Your task to perform on an android device: Do I have any events this weekend? Image 0: 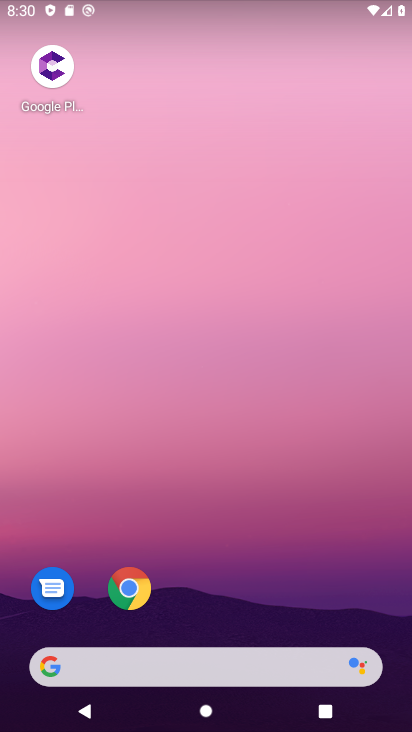
Step 0: drag from (372, 593) to (361, 198)
Your task to perform on an android device: Do I have any events this weekend? Image 1: 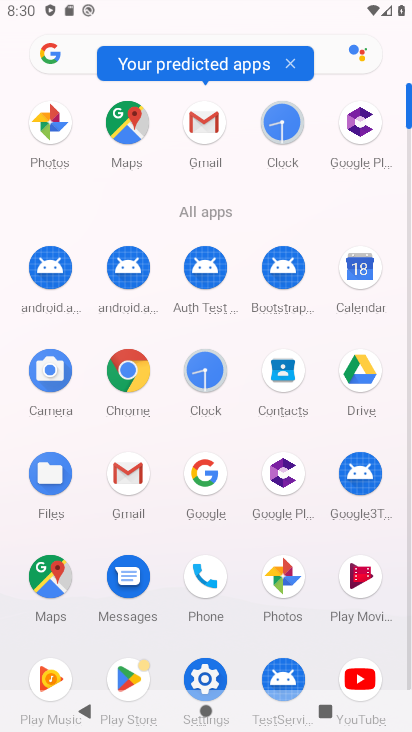
Step 1: click (363, 268)
Your task to perform on an android device: Do I have any events this weekend? Image 2: 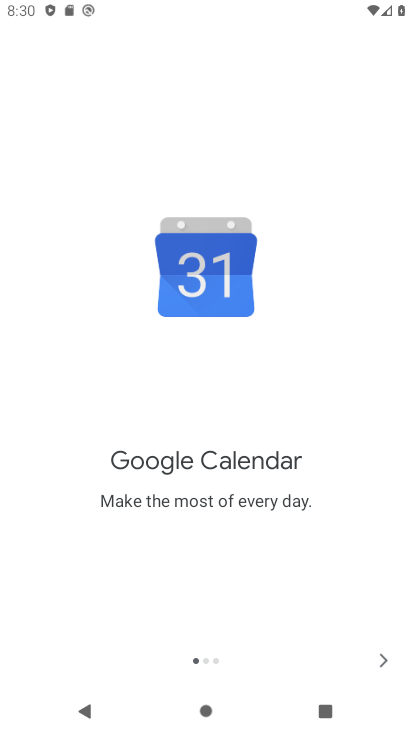
Step 2: click (379, 656)
Your task to perform on an android device: Do I have any events this weekend? Image 3: 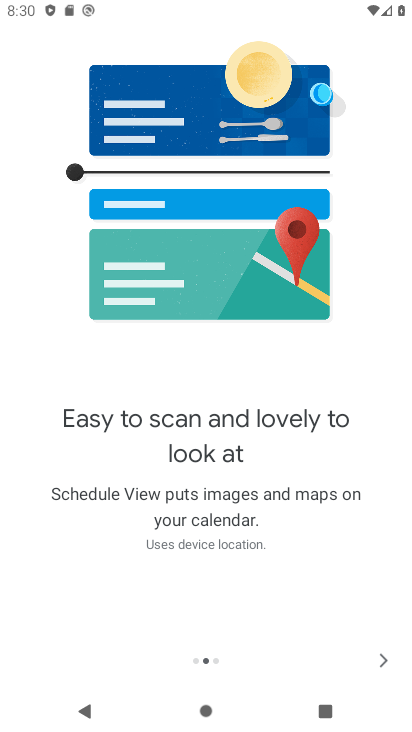
Step 3: click (379, 656)
Your task to perform on an android device: Do I have any events this weekend? Image 4: 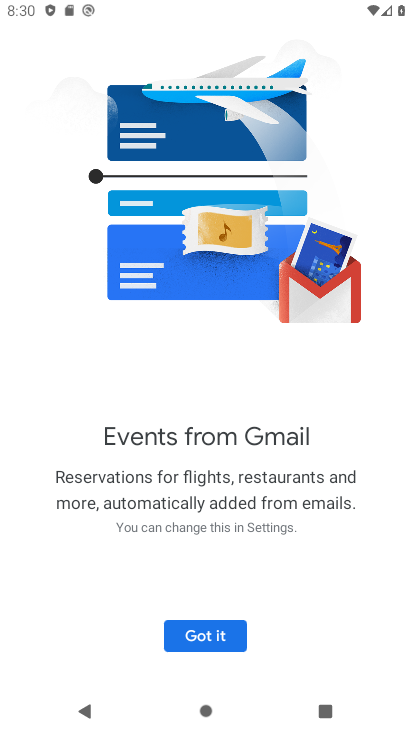
Step 4: click (195, 637)
Your task to perform on an android device: Do I have any events this weekend? Image 5: 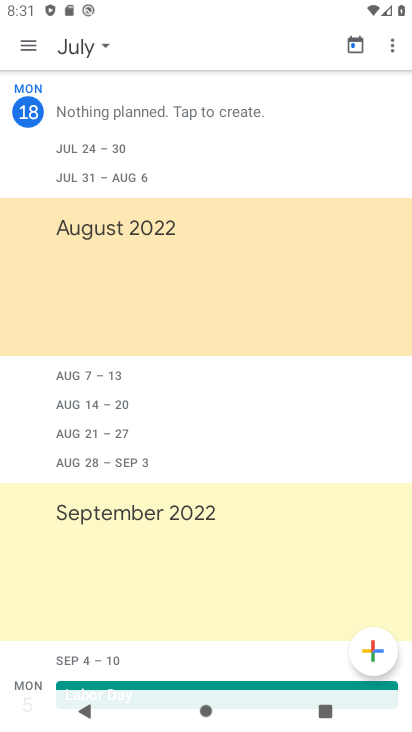
Step 5: click (29, 47)
Your task to perform on an android device: Do I have any events this weekend? Image 6: 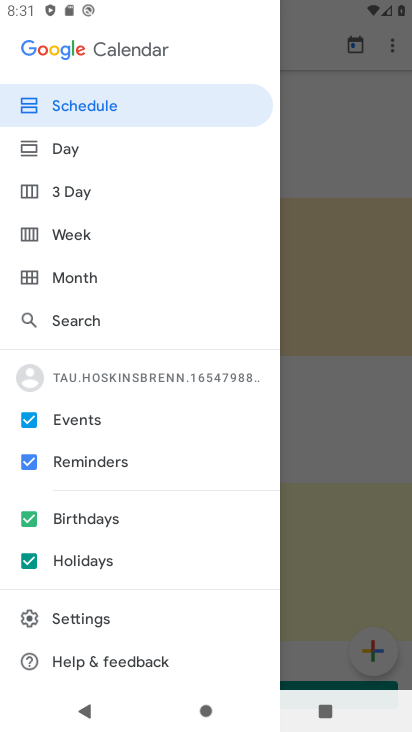
Step 6: click (74, 227)
Your task to perform on an android device: Do I have any events this weekend? Image 7: 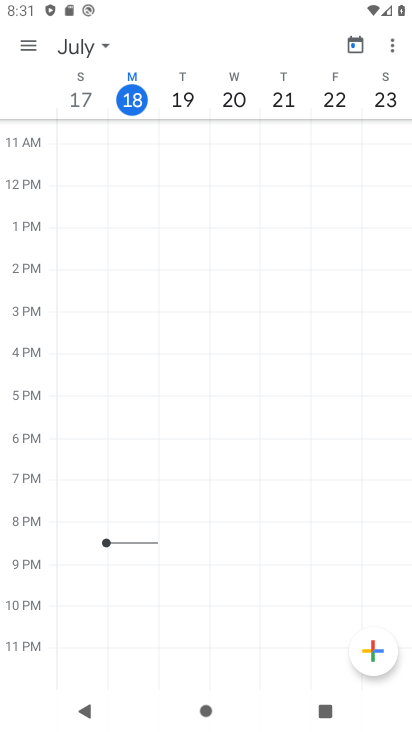
Step 7: task complete